Your task to perform on an android device: toggle notification dots Image 0: 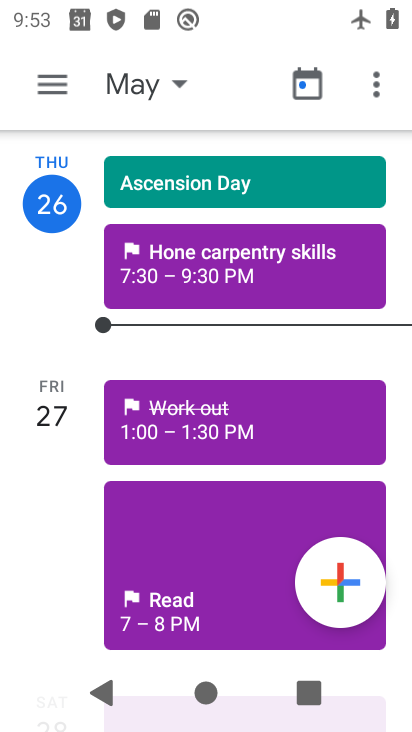
Step 0: press home button
Your task to perform on an android device: toggle notification dots Image 1: 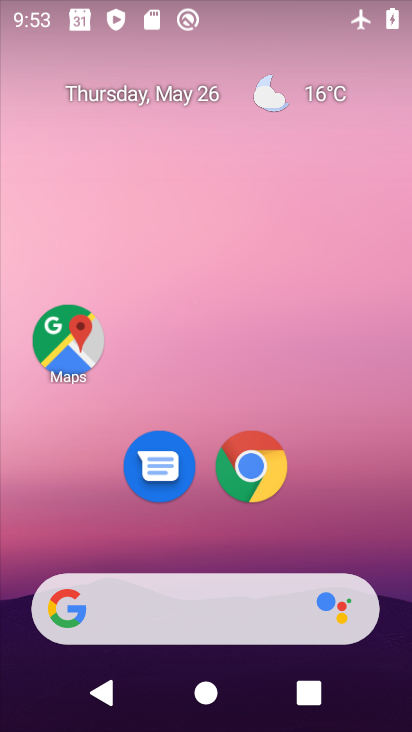
Step 1: drag from (340, 470) to (207, 96)
Your task to perform on an android device: toggle notification dots Image 2: 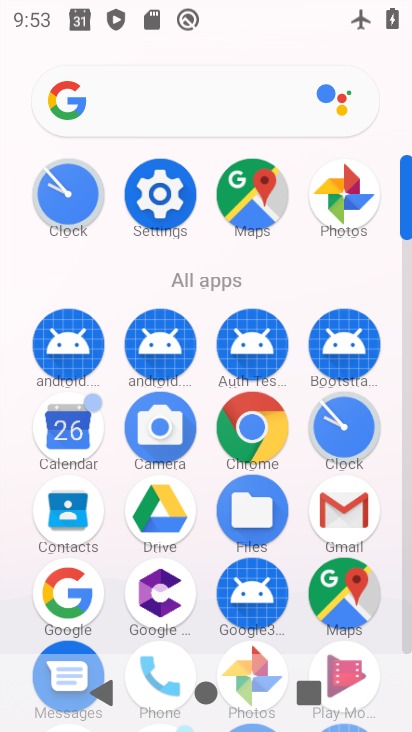
Step 2: click (155, 224)
Your task to perform on an android device: toggle notification dots Image 3: 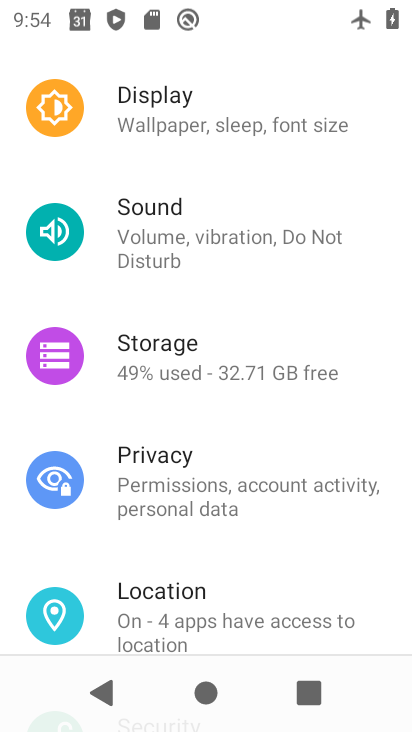
Step 3: drag from (236, 297) to (352, 717)
Your task to perform on an android device: toggle notification dots Image 4: 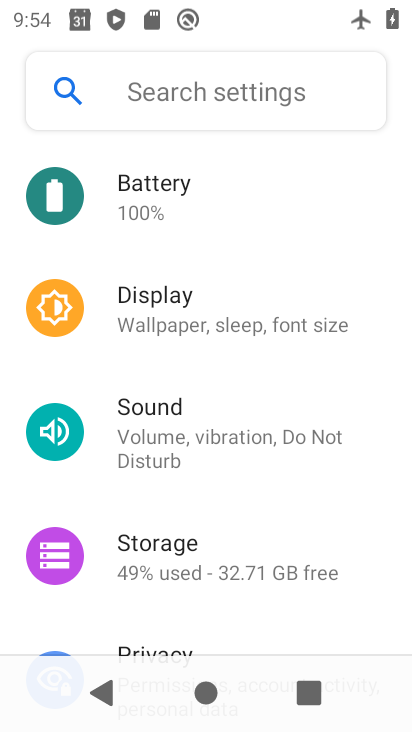
Step 4: drag from (225, 363) to (251, 621)
Your task to perform on an android device: toggle notification dots Image 5: 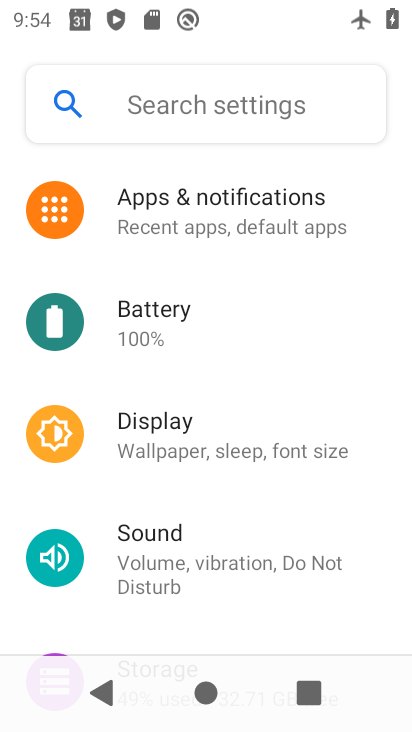
Step 5: click (217, 216)
Your task to perform on an android device: toggle notification dots Image 6: 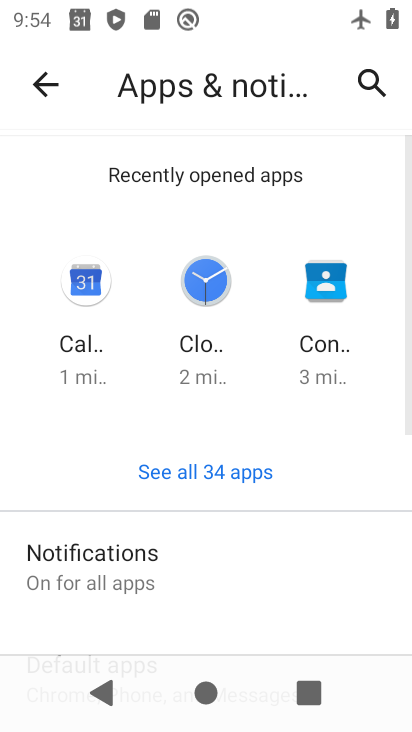
Step 6: drag from (209, 571) to (162, 259)
Your task to perform on an android device: toggle notification dots Image 7: 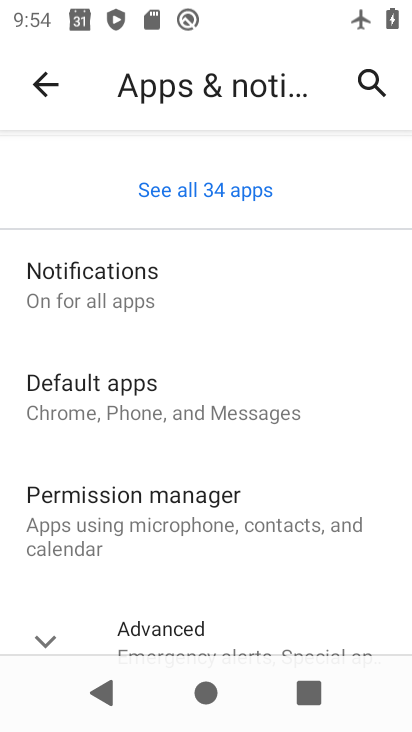
Step 7: click (108, 254)
Your task to perform on an android device: toggle notification dots Image 8: 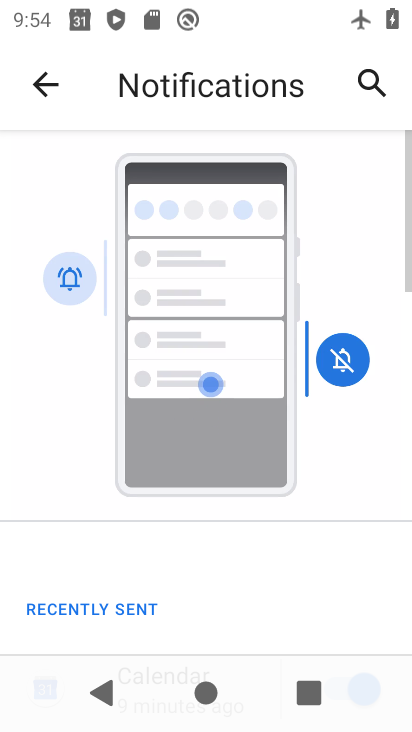
Step 8: drag from (287, 538) to (259, 194)
Your task to perform on an android device: toggle notification dots Image 9: 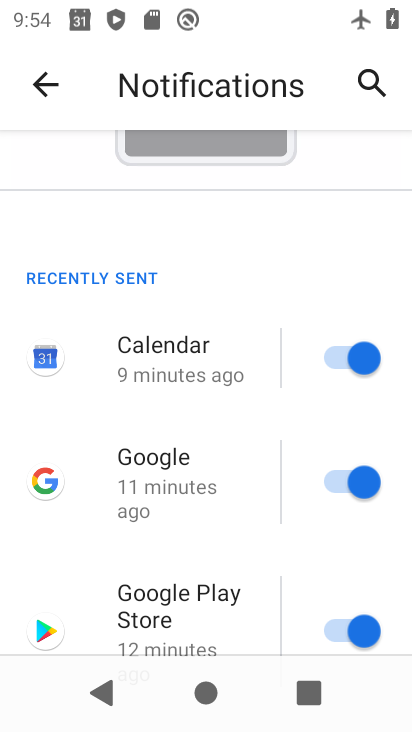
Step 9: drag from (271, 599) to (234, 275)
Your task to perform on an android device: toggle notification dots Image 10: 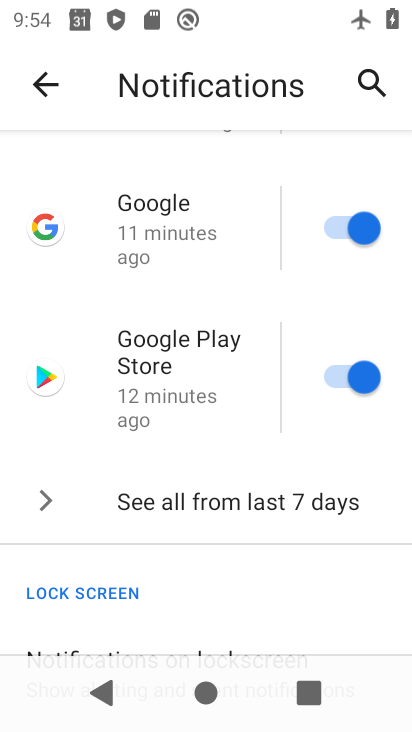
Step 10: drag from (228, 556) to (180, 302)
Your task to perform on an android device: toggle notification dots Image 11: 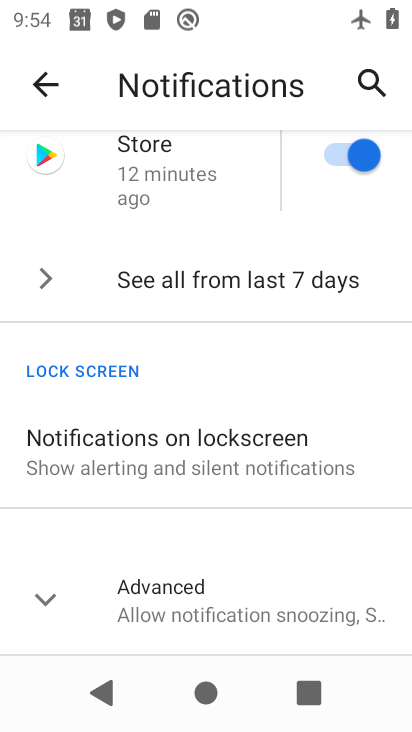
Step 11: drag from (185, 533) to (137, 198)
Your task to perform on an android device: toggle notification dots Image 12: 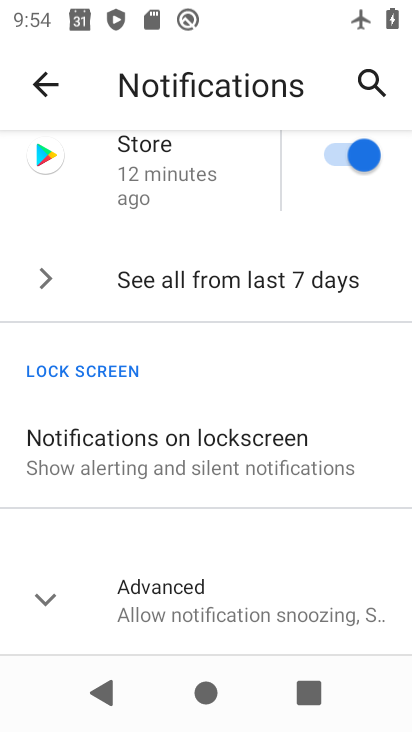
Step 12: click (50, 611)
Your task to perform on an android device: toggle notification dots Image 13: 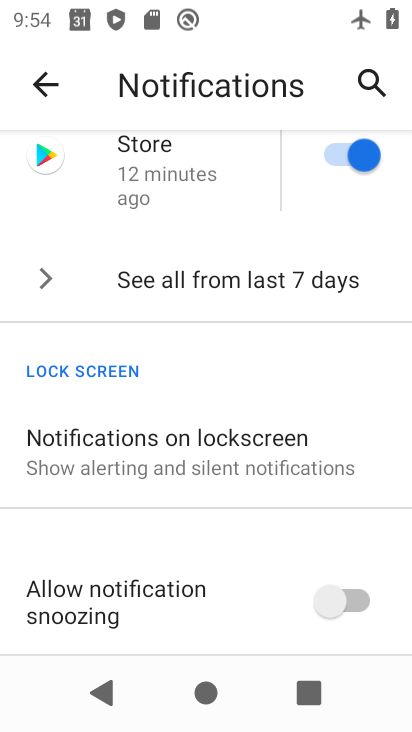
Step 13: drag from (196, 562) to (182, 235)
Your task to perform on an android device: toggle notification dots Image 14: 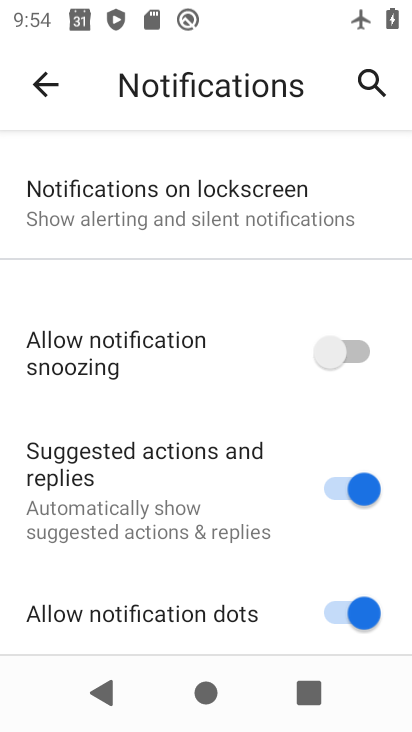
Step 14: drag from (237, 539) to (233, 285)
Your task to perform on an android device: toggle notification dots Image 15: 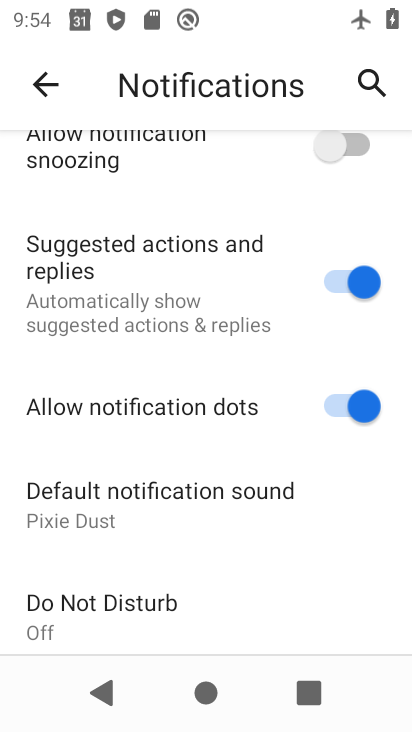
Step 15: click (341, 406)
Your task to perform on an android device: toggle notification dots Image 16: 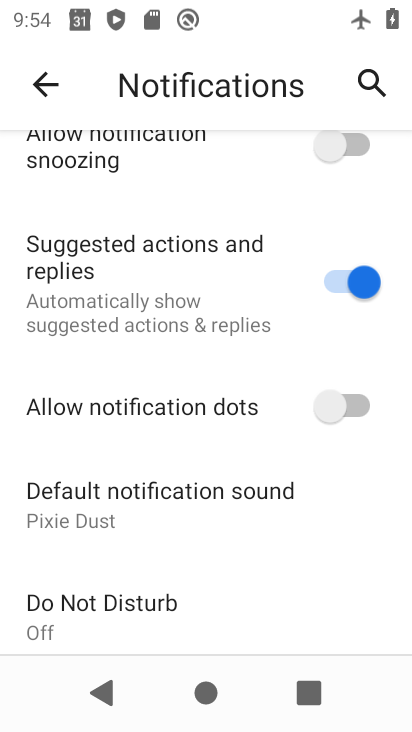
Step 16: task complete